Your task to perform on an android device: Go to Reddit.com Image 0: 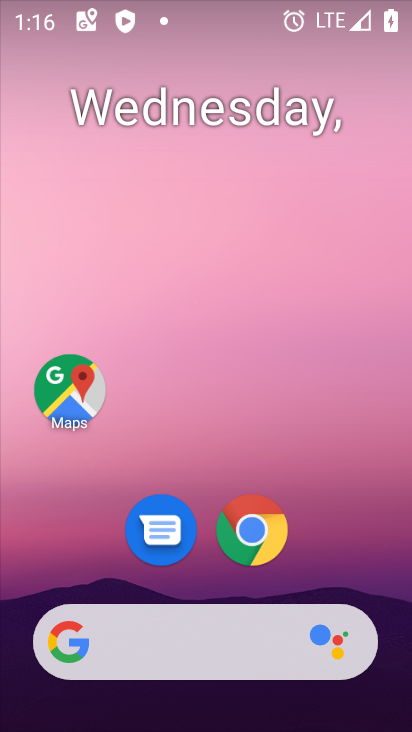
Step 0: drag from (336, 549) to (340, 203)
Your task to perform on an android device: Go to Reddit.com Image 1: 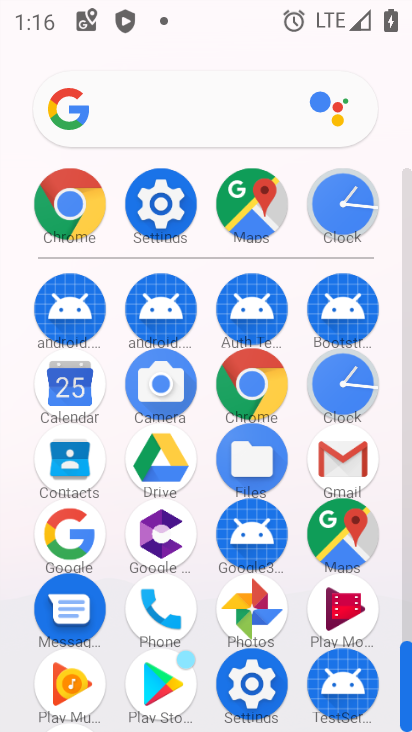
Step 1: click (48, 225)
Your task to perform on an android device: Go to Reddit.com Image 2: 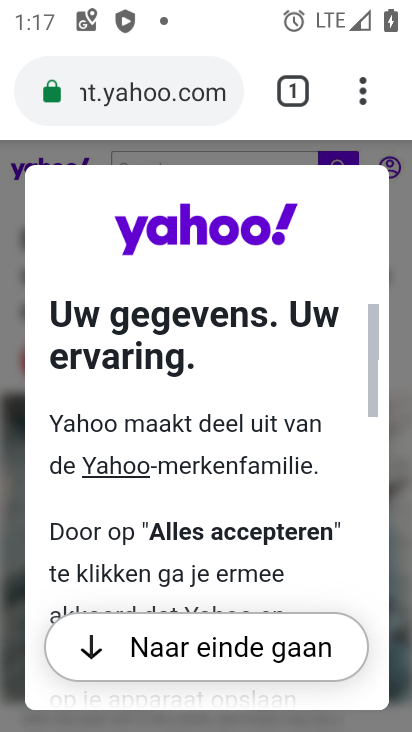
Step 2: click (188, 105)
Your task to perform on an android device: Go to Reddit.com Image 3: 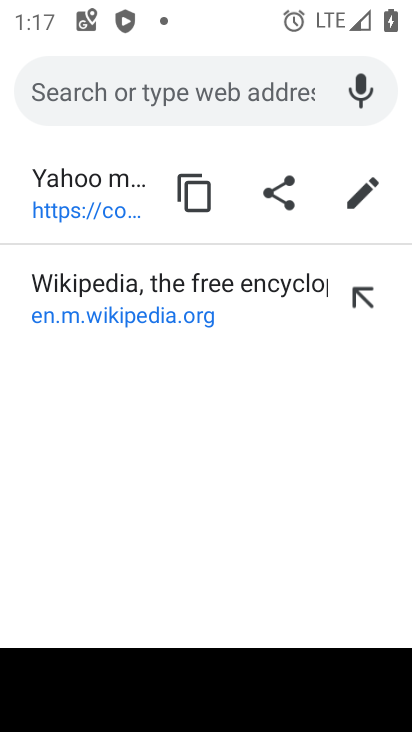
Step 3: type "reddit.com"
Your task to perform on an android device: Go to Reddit.com Image 4: 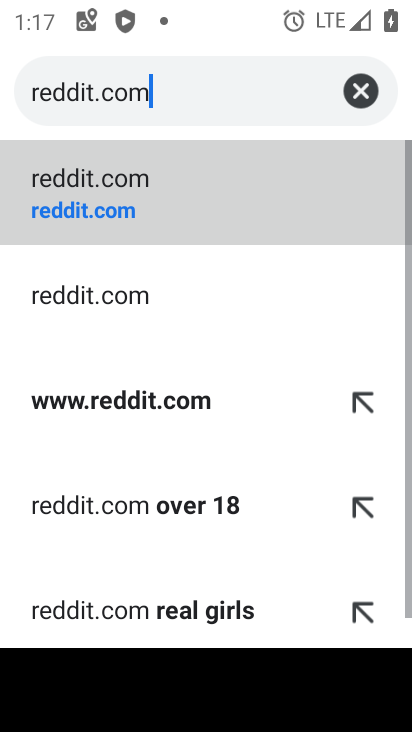
Step 4: click (79, 187)
Your task to perform on an android device: Go to Reddit.com Image 5: 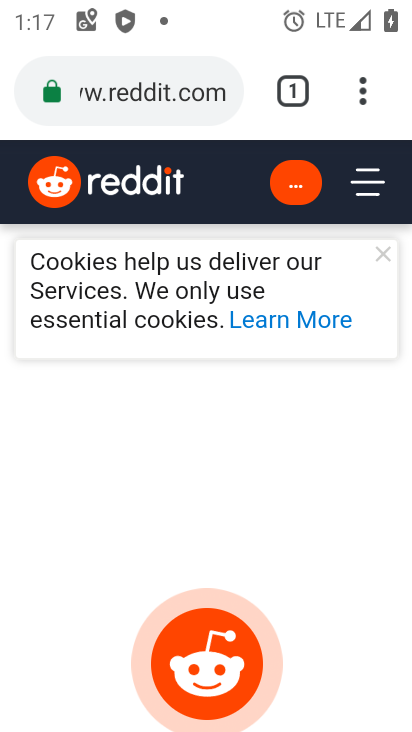
Step 5: task complete